Your task to perform on an android device: turn on notifications settings in the gmail app Image 0: 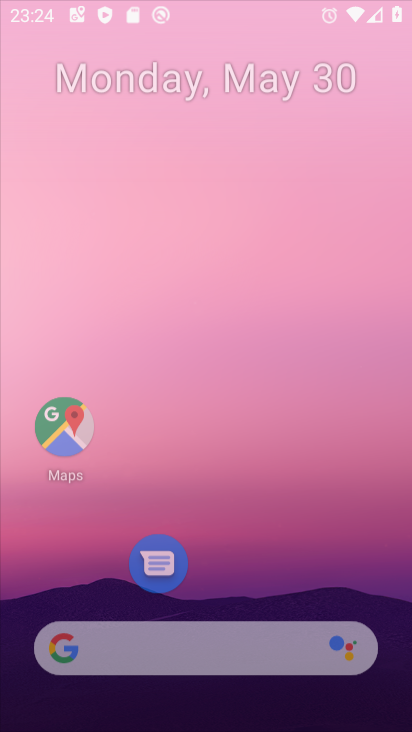
Step 0: click (174, 37)
Your task to perform on an android device: turn on notifications settings in the gmail app Image 1: 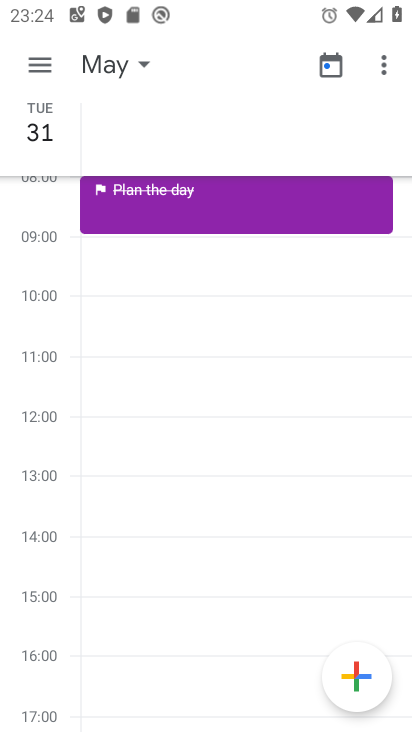
Step 1: press home button
Your task to perform on an android device: turn on notifications settings in the gmail app Image 2: 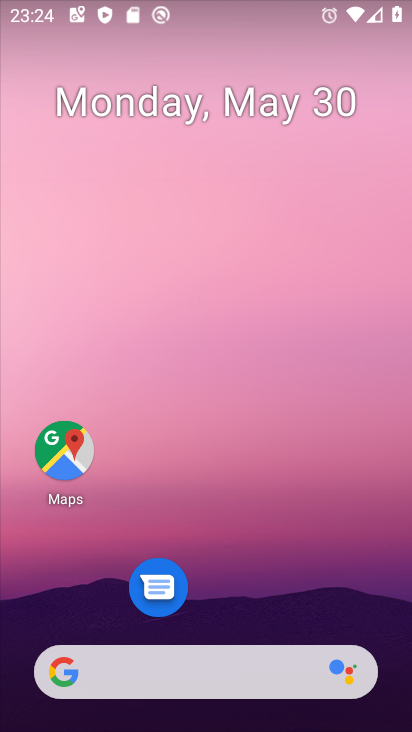
Step 2: drag from (186, 628) to (99, 76)
Your task to perform on an android device: turn on notifications settings in the gmail app Image 3: 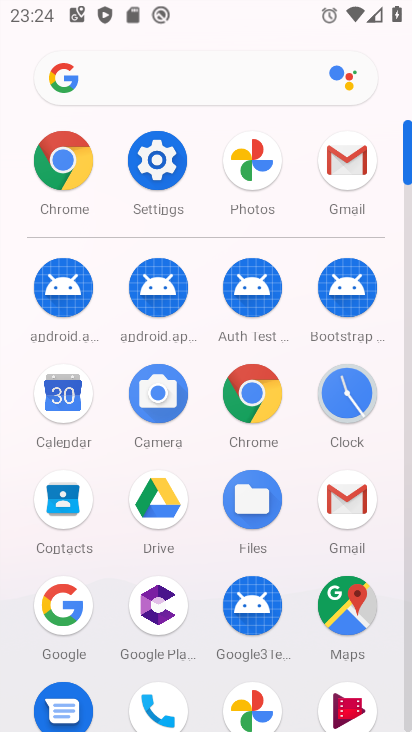
Step 3: click (356, 497)
Your task to perform on an android device: turn on notifications settings in the gmail app Image 4: 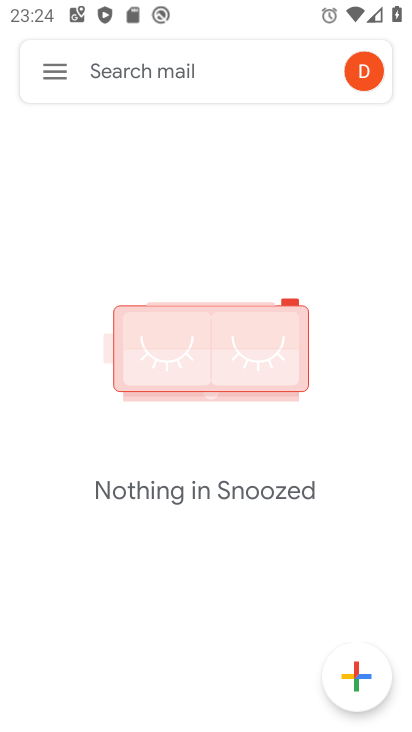
Step 4: click (54, 78)
Your task to perform on an android device: turn on notifications settings in the gmail app Image 5: 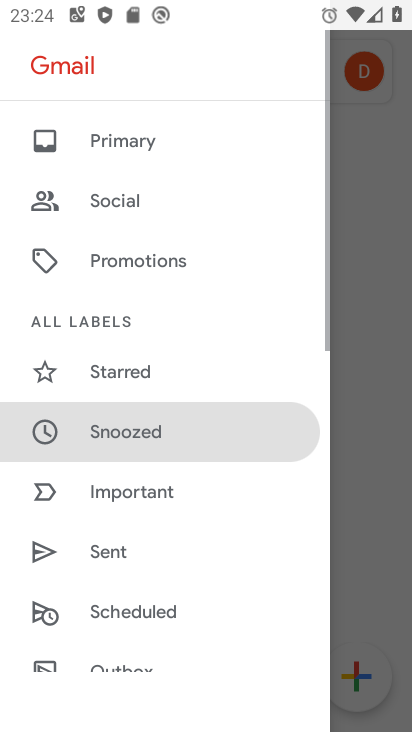
Step 5: drag from (153, 579) to (159, 9)
Your task to perform on an android device: turn on notifications settings in the gmail app Image 6: 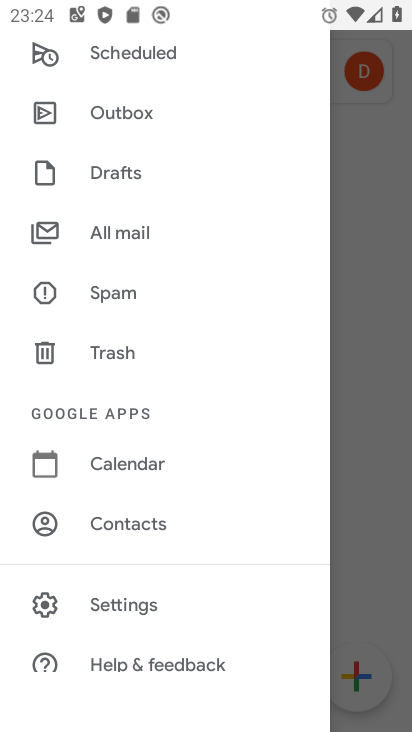
Step 6: click (119, 612)
Your task to perform on an android device: turn on notifications settings in the gmail app Image 7: 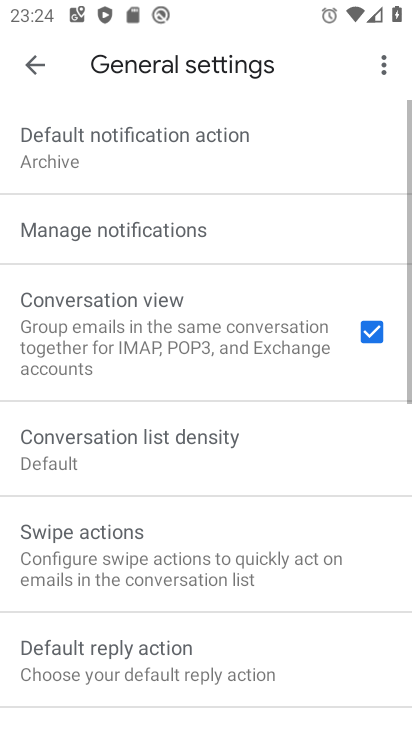
Step 7: click (73, 245)
Your task to perform on an android device: turn on notifications settings in the gmail app Image 8: 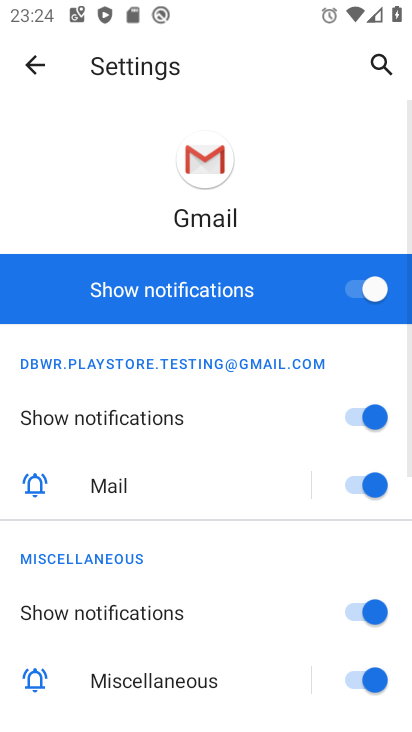
Step 8: task complete